Your task to perform on an android device: change your default location settings in chrome Image 0: 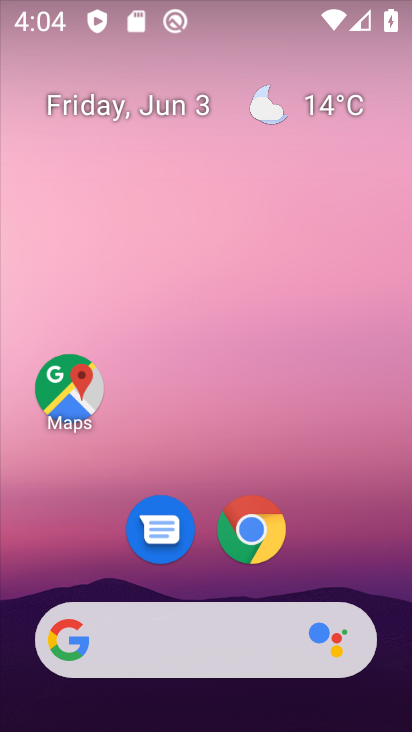
Step 0: drag from (324, 525) to (270, 1)
Your task to perform on an android device: change your default location settings in chrome Image 1: 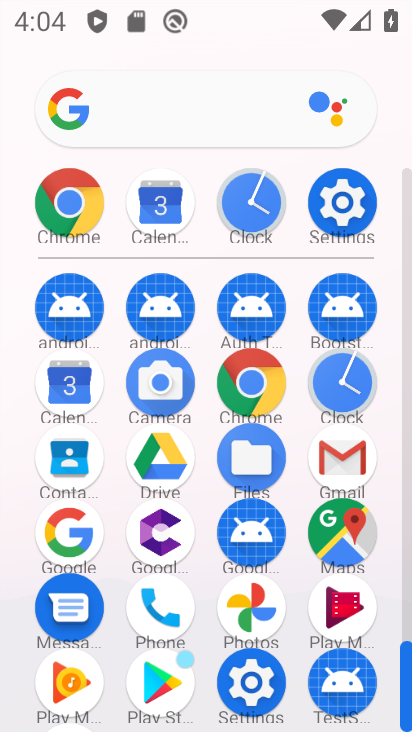
Step 1: click (79, 243)
Your task to perform on an android device: change your default location settings in chrome Image 2: 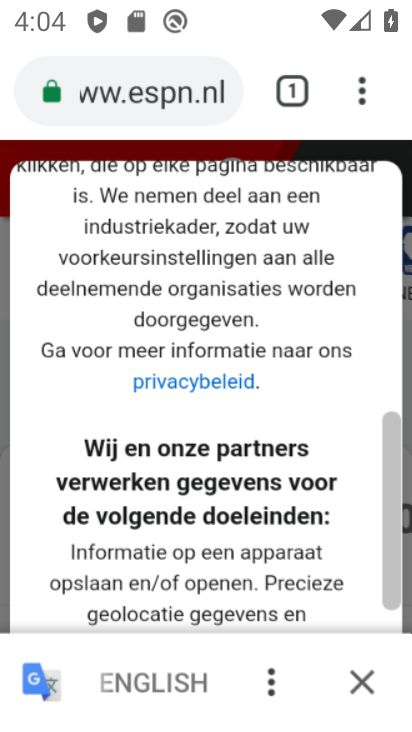
Step 2: drag from (366, 86) to (94, 559)
Your task to perform on an android device: change your default location settings in chrome Image 3: 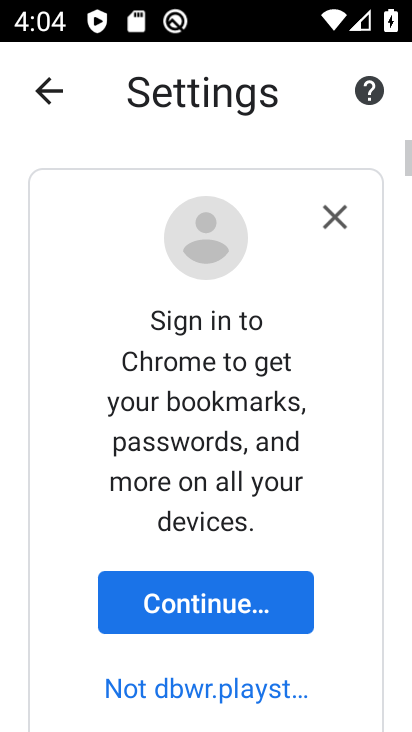
Step 3: drag from (144, 586) to (219, 158)
Your task to perform on an android device: change your default location settings in chrome Image 4: 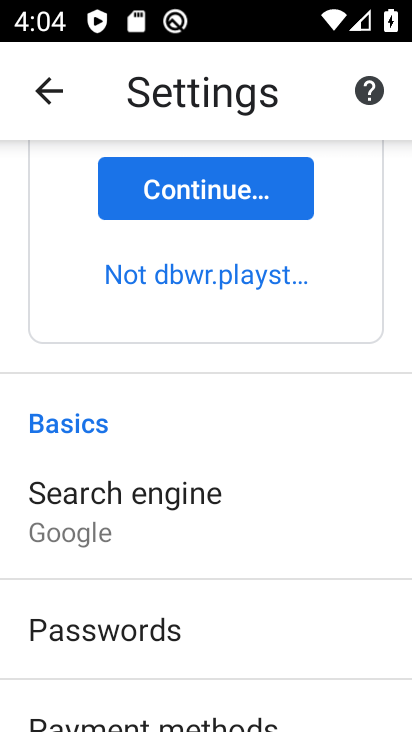
Step 4: drag from (203, 496) to (182, 214)
Your task to perform on an android device: change your default location settings in chrome Image 5: 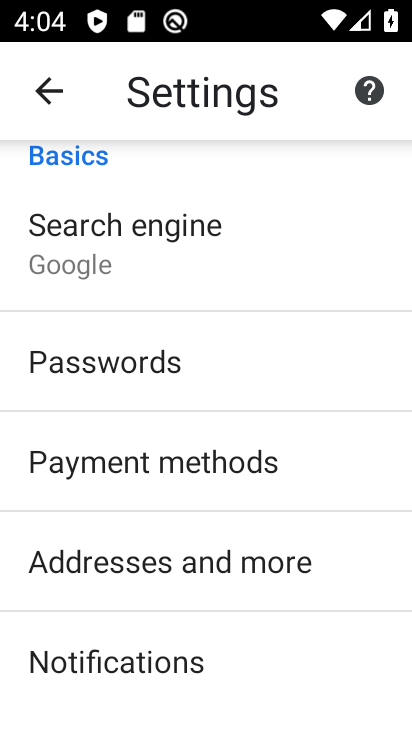
Step 5: drag from (186, 565) to (216, 226)
Your task to perform on an android device: change your default location settings in chrome Image 6: 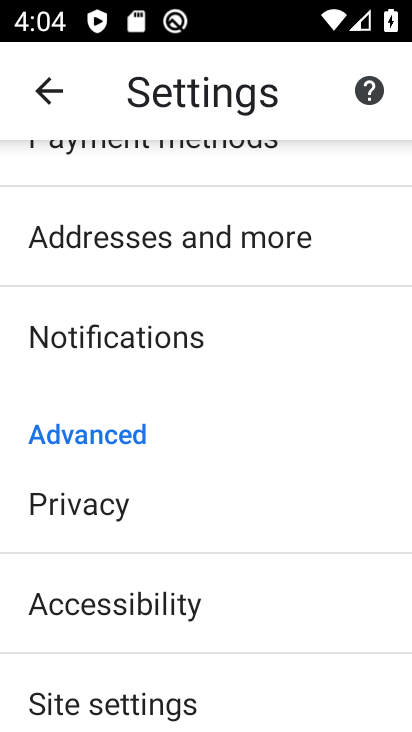
Step 6: drag from (174, 651) to (228, 289)
Your task to perform on an android device: change your default location settings in chrome Image 7: 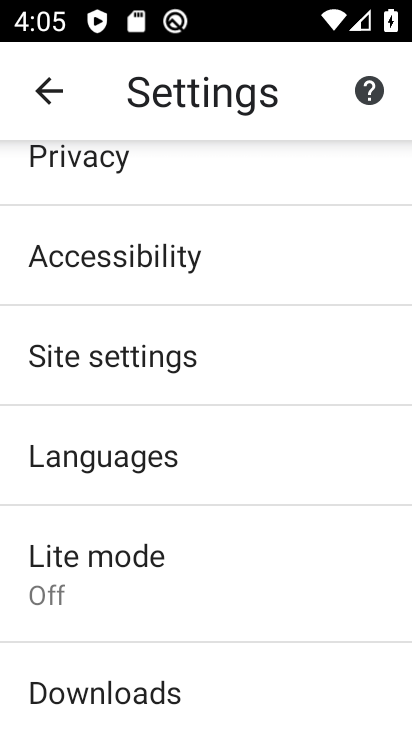
Step 7: click (204, 342)
Your task to perform on an android device: change your default location settings in chrome Image 8: 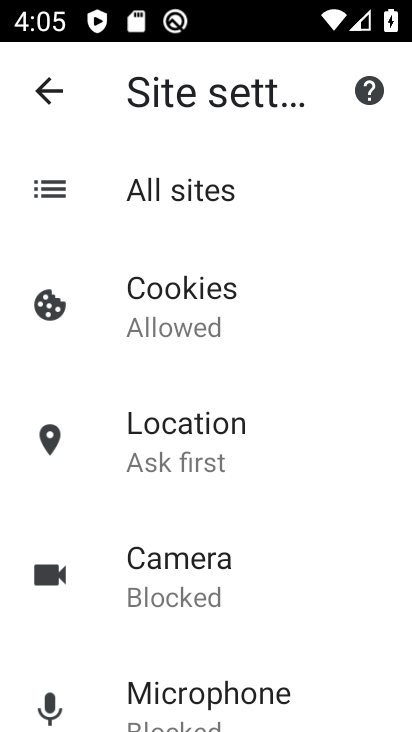
Step 8: click (202, 428)
Your task to perform on an android device: change your default location settings in chrome Image 9: 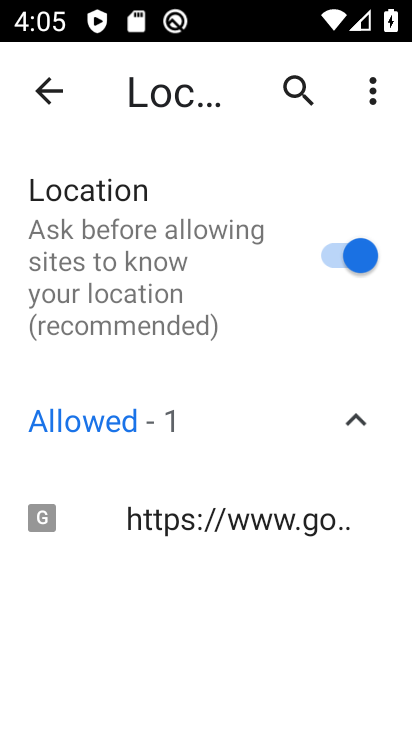
Step 9: click (390, 269)
Your task to perform on an android device: change your default location settings in chrome Image 10: 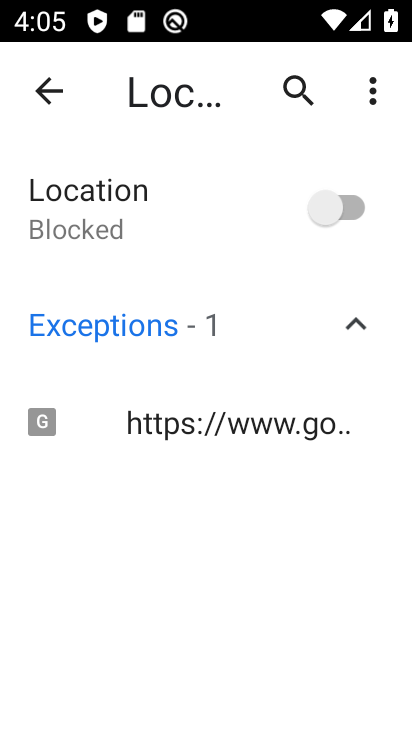
Step 10: task complete